Your task to perform on an android device: What's the weather going to be this weekend? Image 0: 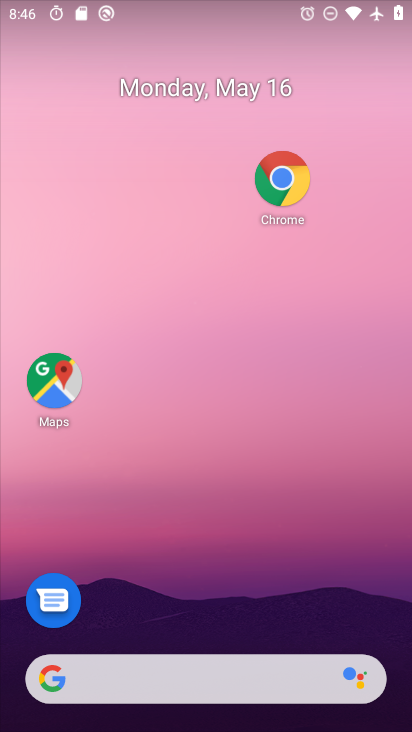
Step 0: click (54, 674)
Your task to perform on an android device: What's the weather going to be this weekend? Image 1: 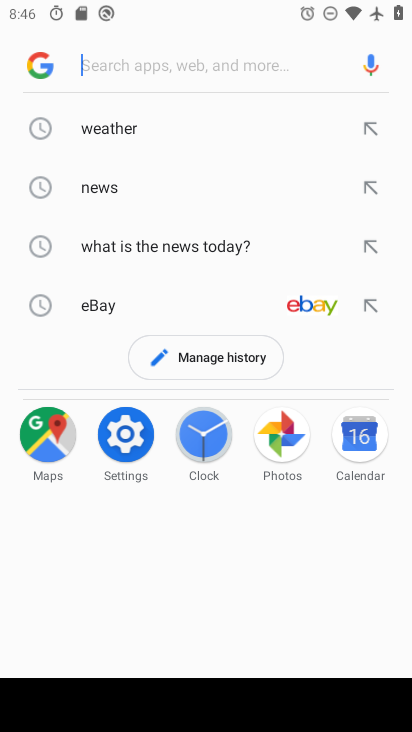
Step 1: click (135, 127)
Your task to perform on an android device: What's the weather going to be this weekend? Image 2: 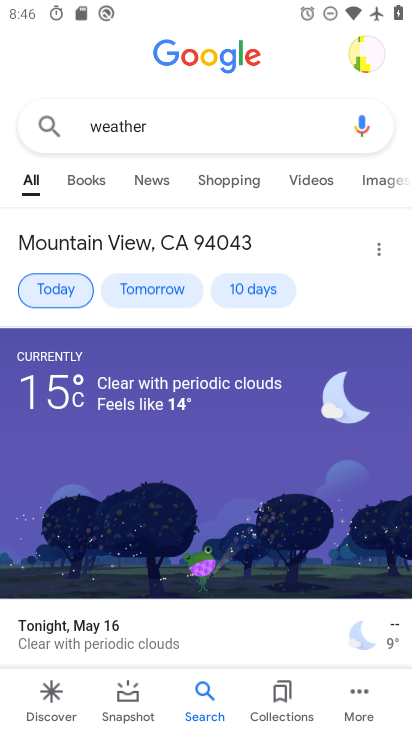
Step 2: click (239, 291)
Your task to perform on an android device: What's the weather going to be this weekend? Image 3: 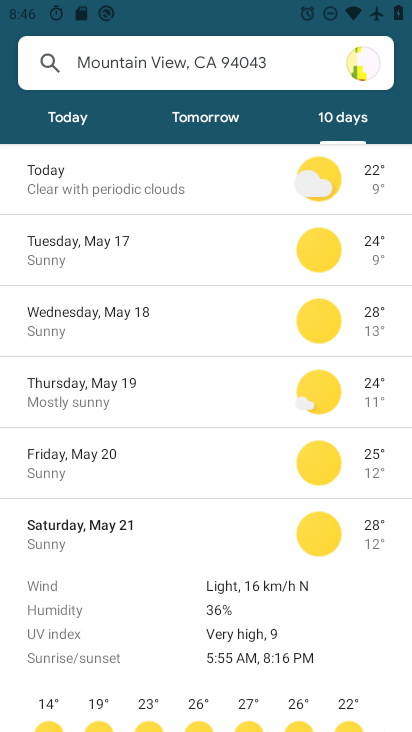
Step 3: task complete